Your task to perform on an android device: Empty the shopping cart on bestbuy. Add lenovo thinkpad to the cart on bestbuy Image 0: 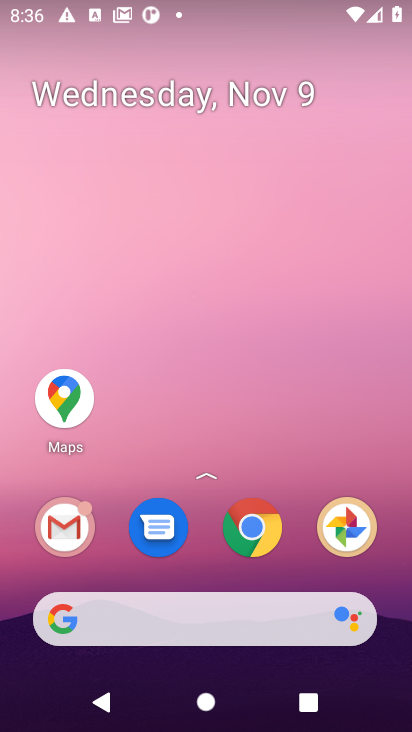
Step 0: click (251, 532)
Your task to perform on an android device: Empty the shopping cart on bestbuy. Add lenovo thinkpad to the cart on bestbuy Image 1: 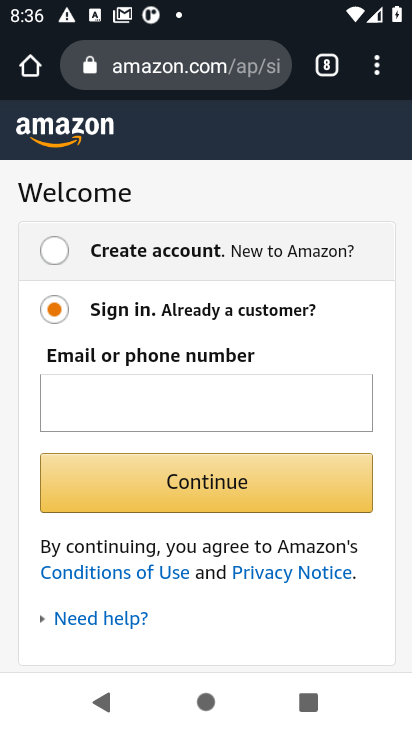
Step 1: click (203, 73)
Your task to perform on an android device: Empty the shopping cart on bestbuy. Add lenovo thinkpad to the cart on bestbuy Image 2: 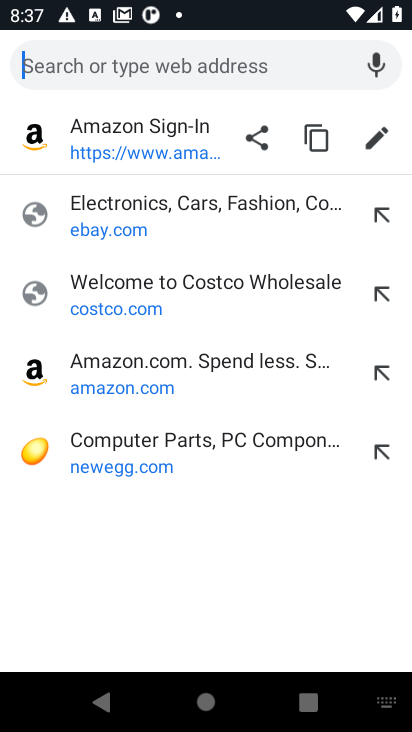
Step 2: type "bestbuy.com"
Your task to perform on an android device: Empty the shopping cart on bestbuy. Add lenovo thinkpad to the cart on bestbuy Image 3: 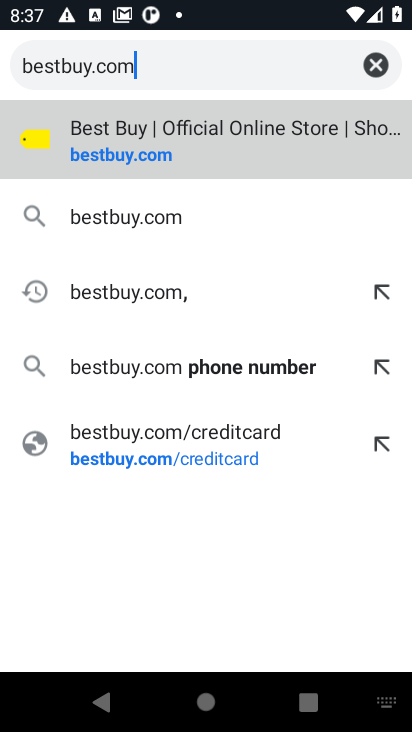
Step 3: click (157, 159)
Your task to perform on an android device: Empty the shopping cart on bestbuy. Add lenovo thinkpad to the cart on bestbuy Image 4: 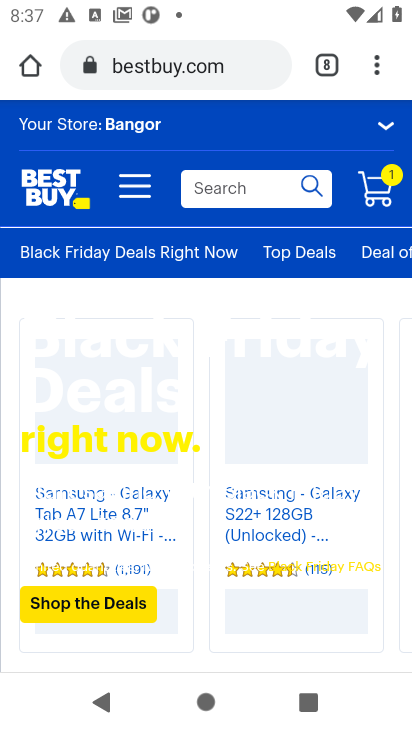
Step 4: click (370, 191)
Your task to perform on an android device: Empty the shopping cart on bestbuy. Add lenovo thinkpad to the cart on bestbuy Image 5: 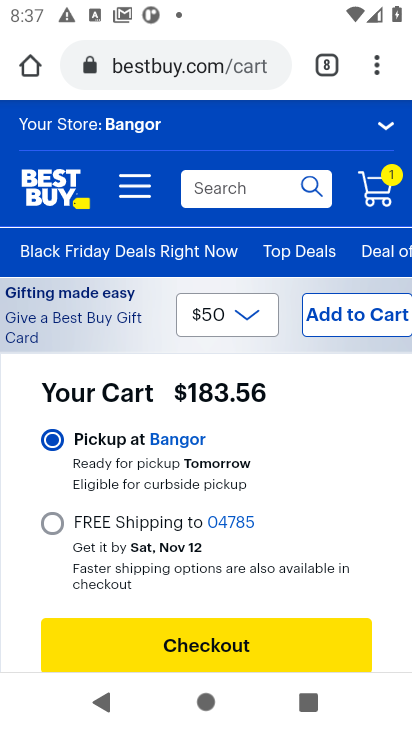
Step 5: drag from (293, 480) to (269, 213)
Your task to perform on an android device: Empty the shopping cart on bestbuy. Add lenovo thinkpad to the cart on bestbuy Image 6: 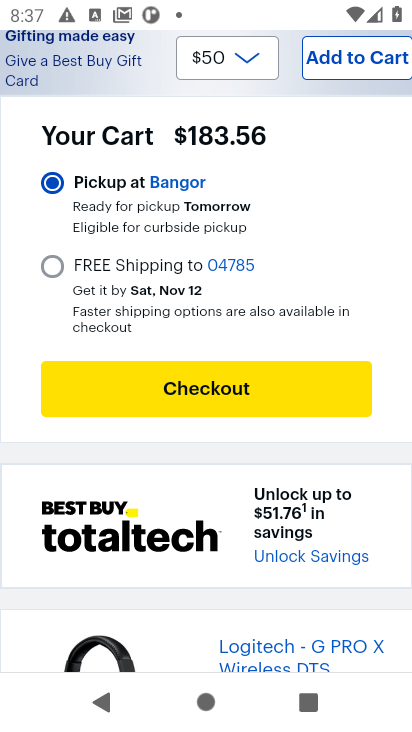
Step 6: drag from (174, 472) to (148, 214)
Your task to perform on an android device: Empty the shopping cart on bestbuy. Add lenovo thinkpad to the cart on bestbuy Image 7: 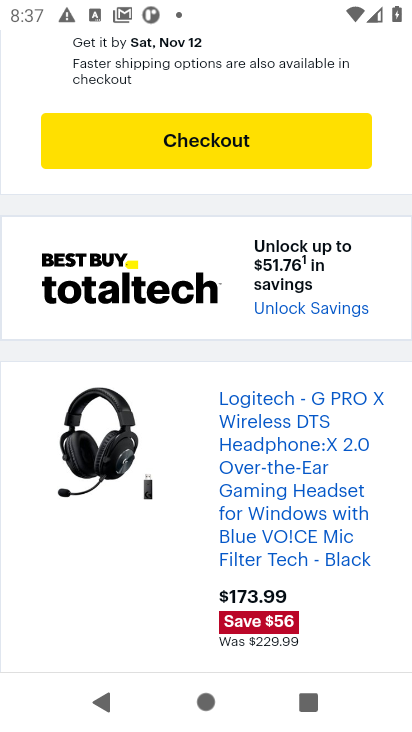
Step 7: drag from (91, 489) to (95, 275)
Your task to perform on an android device: Empty the shopping cart on bestbuy. Add lenovo thinkpad to the cart on bestbuy Image 8: 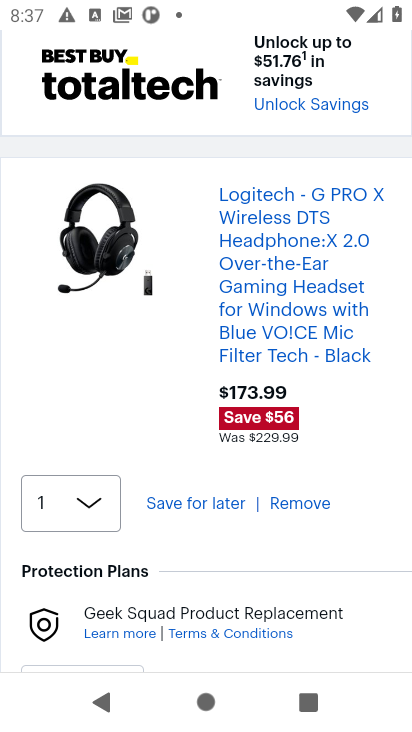
Step 8: click (306, 501)
Your task to perform on an android device: Empty the shopping cart on bestbuy. Add lenovo thinkpad to the cart on bestbuy Image 9: 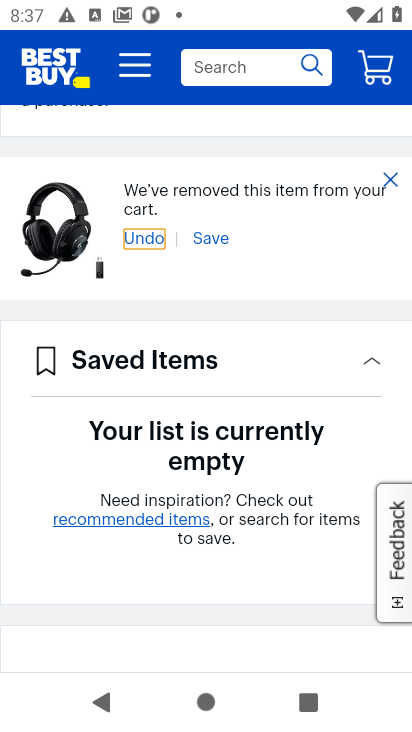
Step 9: click (205, 73)
Your task to perform on an android device: Empty the shopping cart on bestbuy. Add lenovo thinkpad to the cart on bestbuy Image 10: 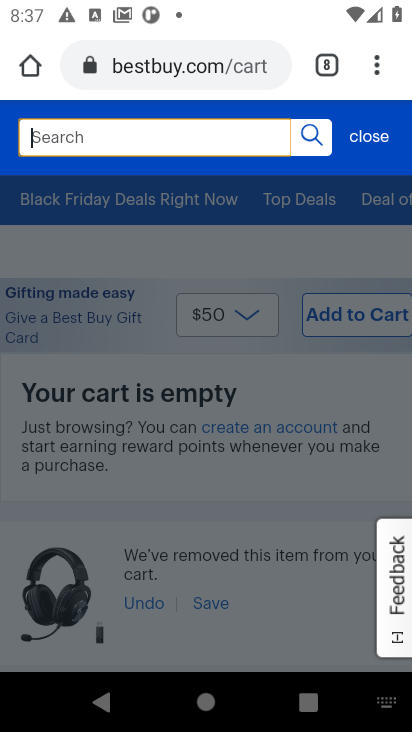
Step 10: type " lenovo thinkpad "
Your task to perform on an android device: Empty the shopping cart on bestbuy. Add lenovo thinkpad to the cart on bestbuy Image 11: 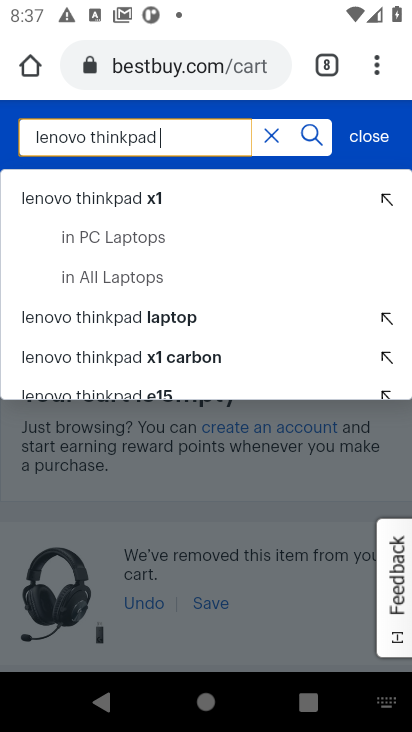
Step 11: click (311, 134)
Your task to perform on an android device: Empty the shopping cart on bestbuy. Add lenovo thinkpad to the cart on bestbuy Image 12: 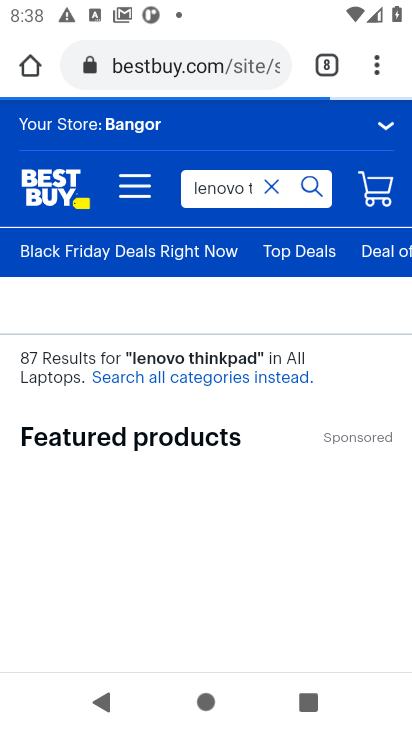
Step 12: drag from (169, 519) to (183, 231)
Your task to perform on an android device: Empty the shopping cart on bestbuy. Add lenovo thinkpad to the cart on bestbuy Image 13: 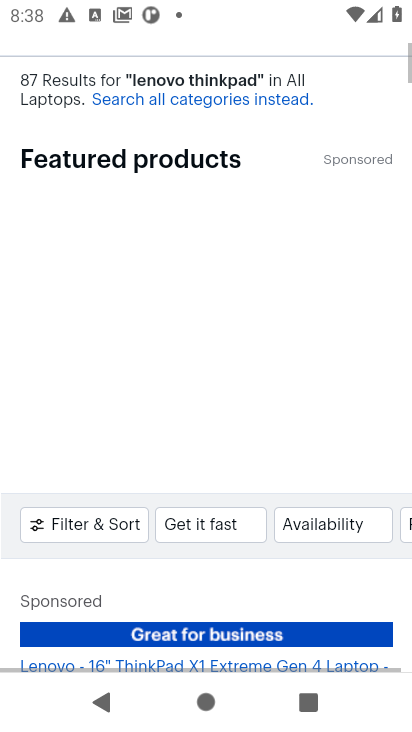
Step 13: drag from (142, 475) to (168, 156)
Your task to perform on an android device: Empty the shopping cart on bestbuy. Add lenovo thinkpad to the cart on bestbuy Image 14: 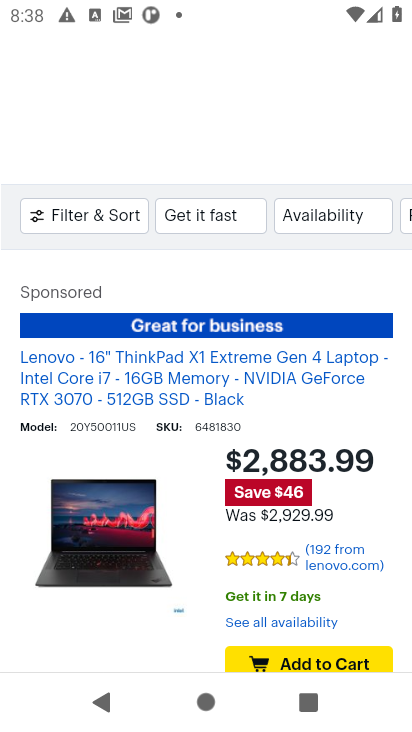
Step 14: drag from (120, 444) to (134, 218)
Your task to perform on an android device: Empty the shopping cart on bestbuy. Add lenovo thinkpad to the cart on bestbuy Image 15: 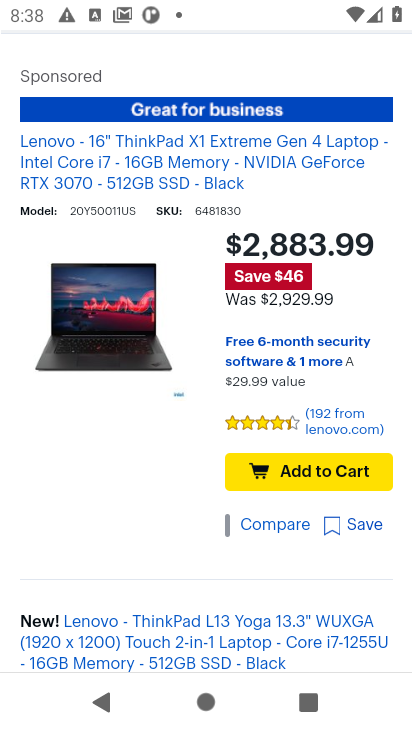
Step 15: click (91, 316)
Your task to perform on an android device: Empty the shopping cart on bestbuy. Add lenovo thinkpad to the cart on bestbuy Image 16: 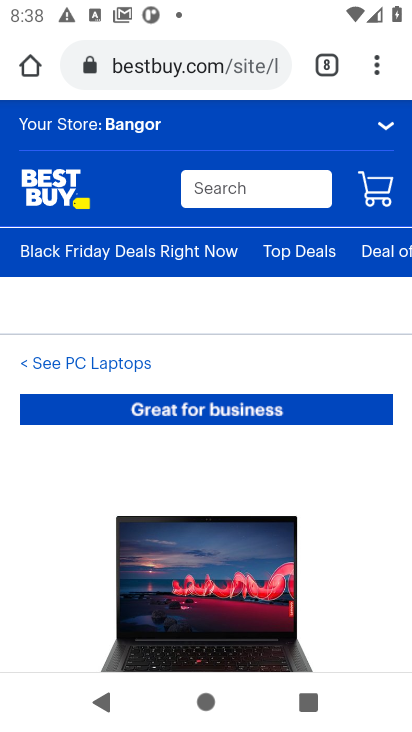
Step 16: drag from (153, 429) to (136, 192)
Your task to perform on an android device: Empty the shopping cart on bestbuy. Add lenovo thinkpad to the cart on bestbuy Image 17: 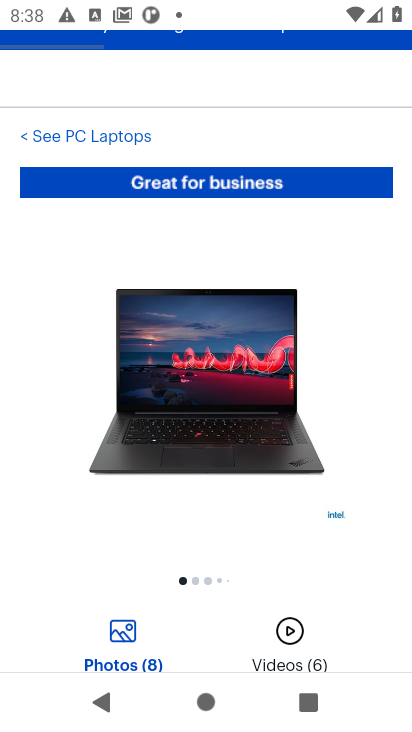
Step 17: drag from (118, 500) to (85, 166)
Your task to perform on an android device: Empty the shopping cart on bestbuy. Add lenovo thinkpad to the cart on bestbuy Image 18: 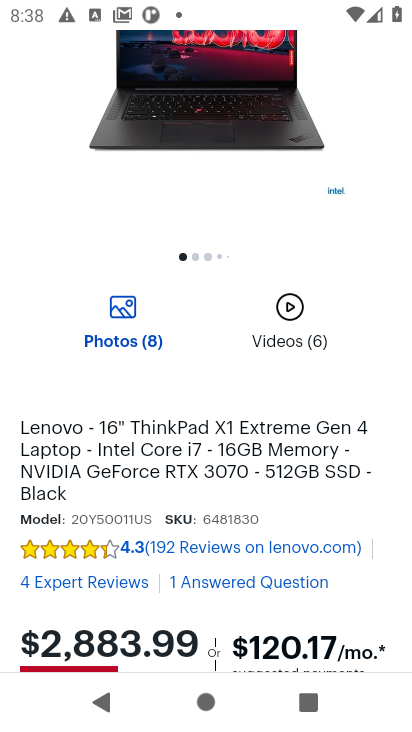
Step 18: drag from (91, 526) to (107, 213)
Your task to perform on an android device: Empty the shopping cart on bestbuy. Add lenovo thinkpad to the cart on bestbuy Image 19: 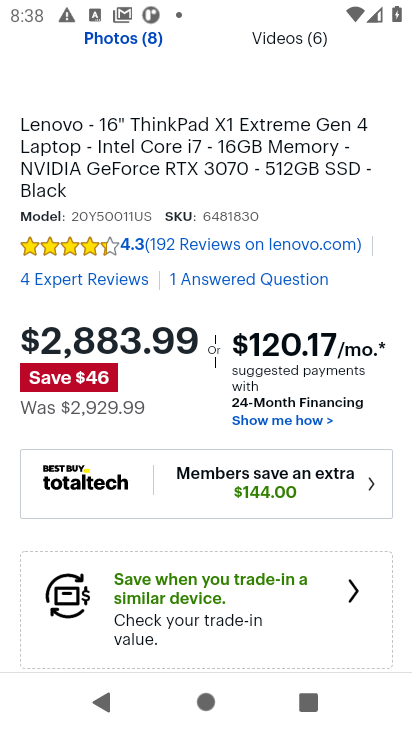
Step 19: drag from (102, 513) to (120, 197)
Your task to perform on an android device: Empty the shopping cart on bestbuy. Add lenovo thinkpad to the cart on bestbuy Image 20: 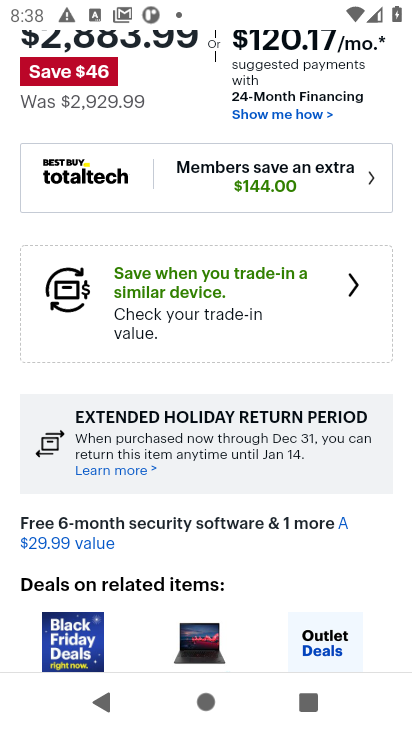
Step 20: drag from (103, 436) to (119, 166)
Your task to perform on an android device: Empty the shopping cart on bestbuy. Add lenovo thinkpad to the cart on bestbuy Image 21: 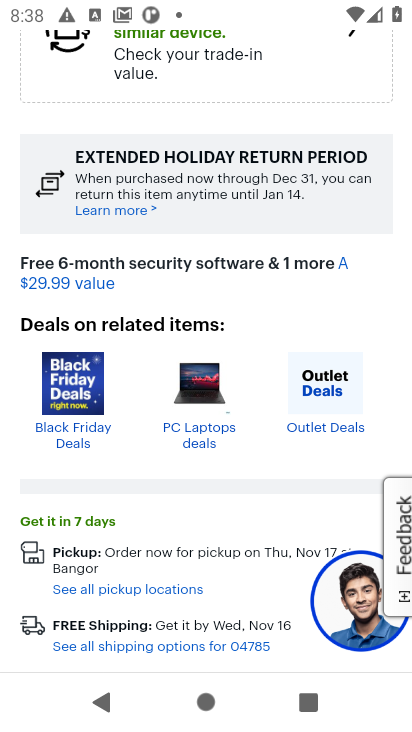
Step 21: drag from (121, 537) to (117, 174)
Your task to perform on an android device: Empty the shopping cart on bestbuy. Add lenovo thinkpad to the cart on bestbuy Image 22: 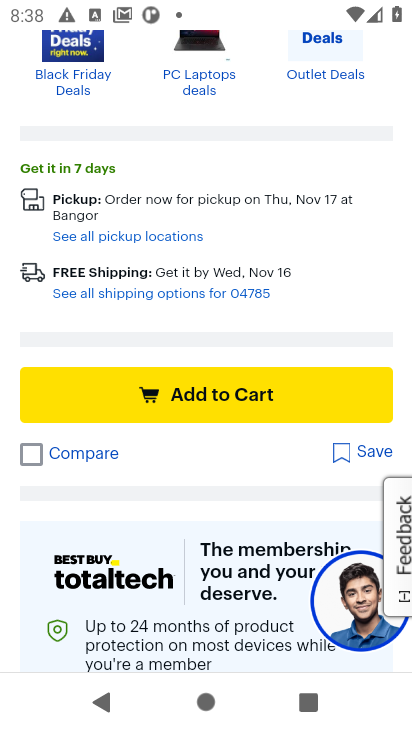
Step 22: click (148, 387)
Your task to perform on an android device: Empty the shopping cart on bestbuy. Add lenovo thinkpad to the cart on bestbuy Image 23: 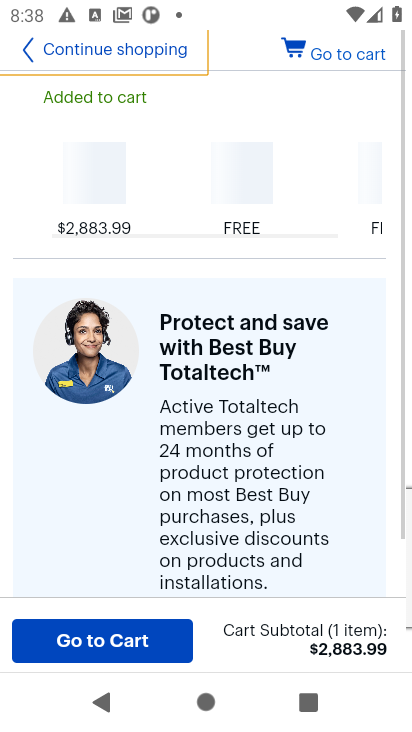
Step 23: task complete